Your task to perform on an android device: Open Reddit.com Image 0: 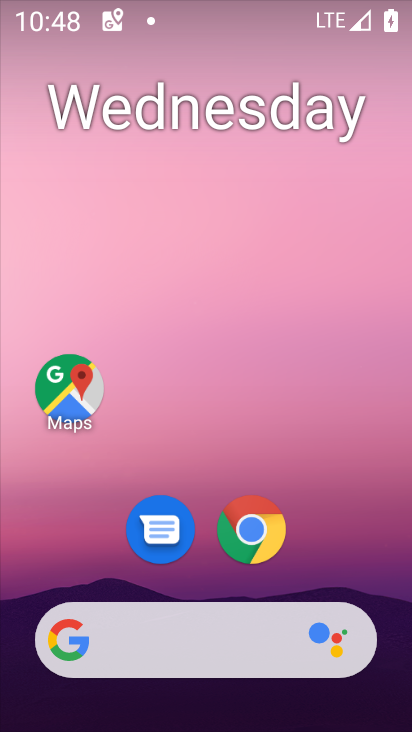
Step 0: click (249, 529)
Your task to perform on an android device: Open Reddit.com Image 1: 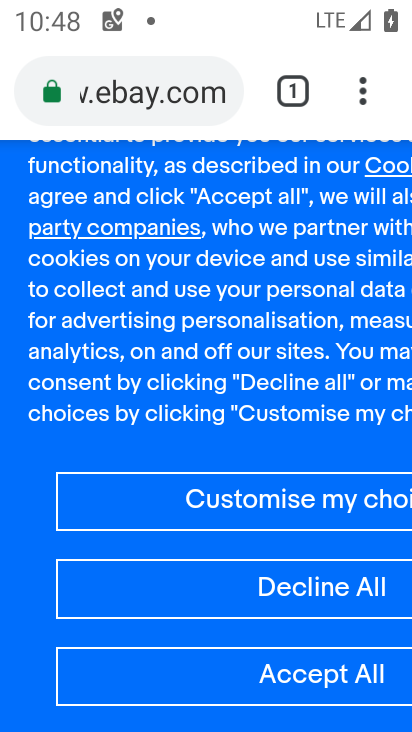
Step 1: click (180, 86)
Your task to perform on an android device: Open Reddit.com Image 2: 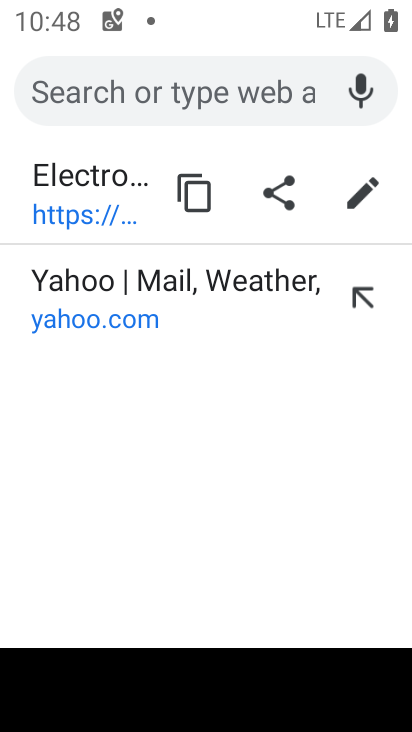
Step 2: type "reddit.com"
Your task to perform on an android device: Open Reddit.com Image 3: 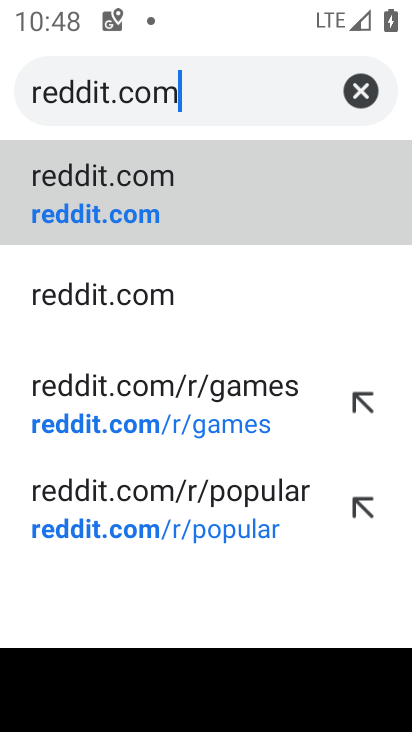
Step 3: click (78, 173)
Your task to perform on an android device: Open Reddit.com Image 4: 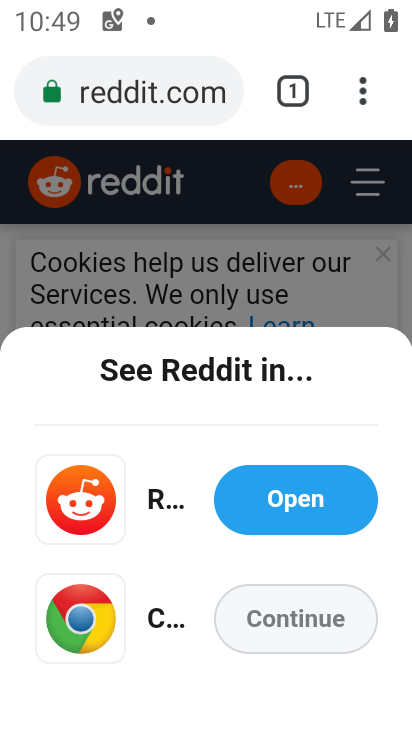
Step 4: task complete